Your task to perform on an android device: Go to Maps Image 0: 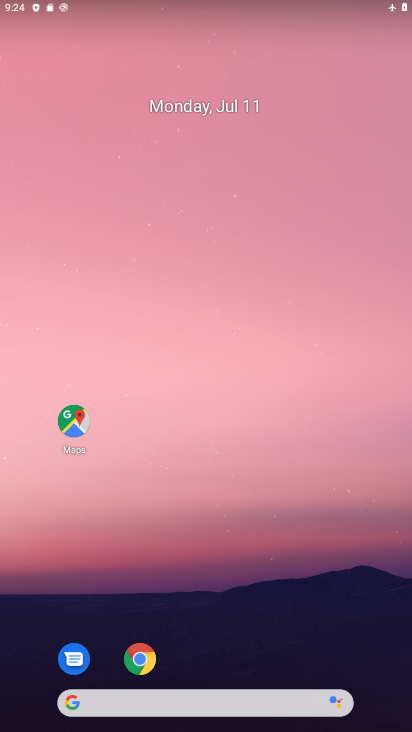
Step 0: click (78, 422)
Your task to perform on an android device: Go to Maps Image 1: 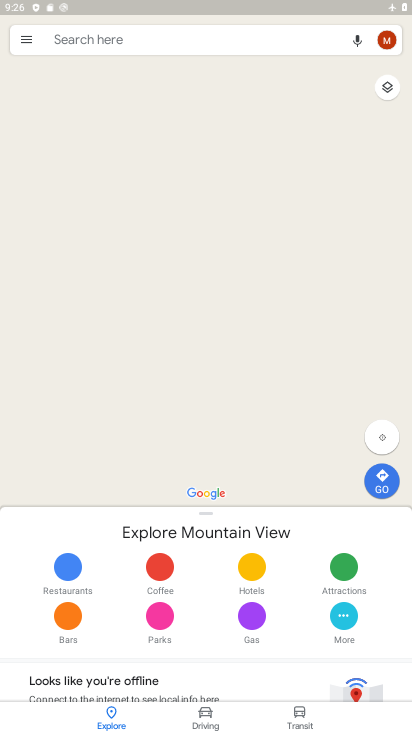
Step 1: task complete